Your task to perform on an android device: change notifications settings Image 0: 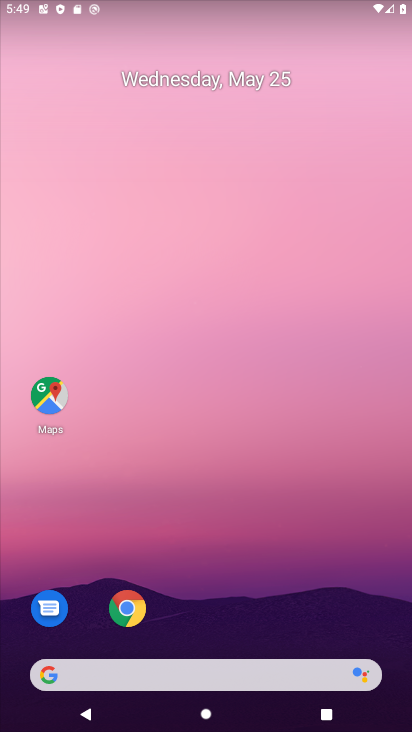
Step 0: drag from (189, 628) to (282, 72)
Your task to perform on an android device: change notifications settings Image 1: 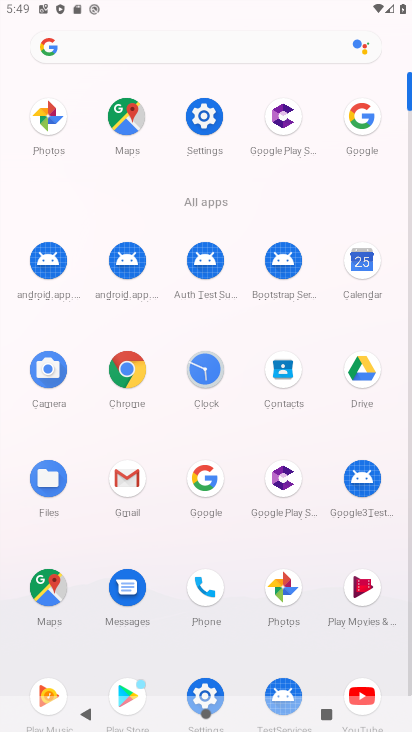
Step 1: click (208, 126)
Your task to perform on an android device: change notifications settings Image 2: 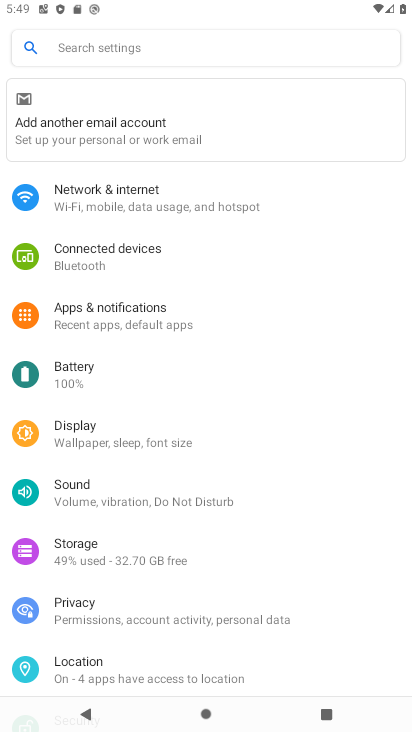
Step 2: click (118, 331)
Your task to perform on an android device: change notifications settings Image 3: 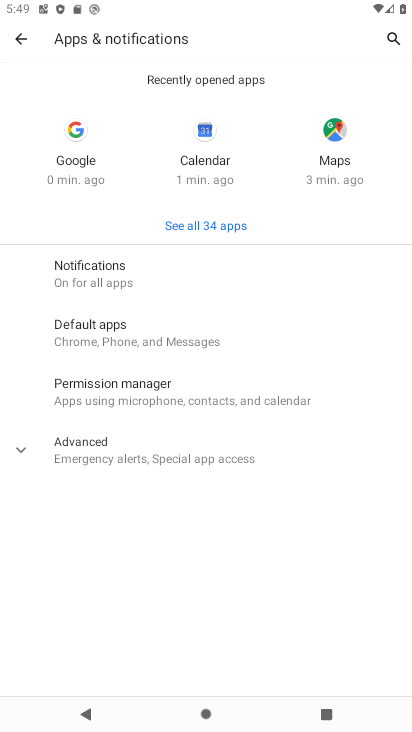
Step 3: click (107, 285)
Your task to perform on an android device: change notifications settings Image 4: 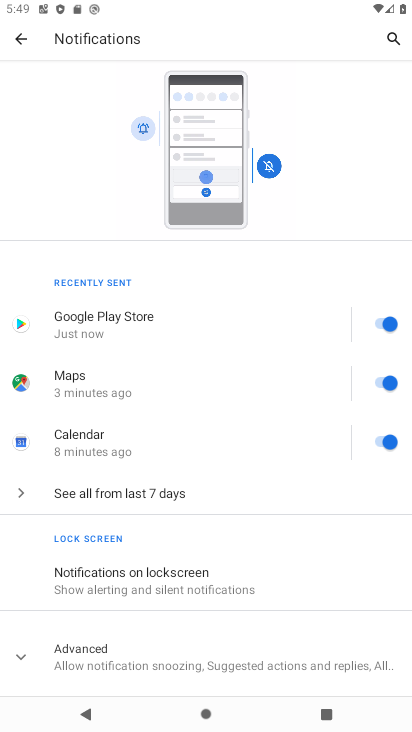
Step 4: click (140, 581)
Your task to perform on an android device: change notifications settings Image 5: 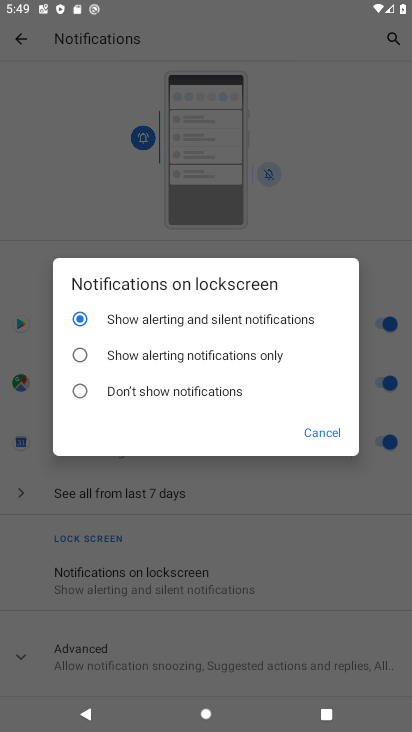
Step 5: click (80, 397)
Your task to perform on an android device: change notifications settings Image 6: 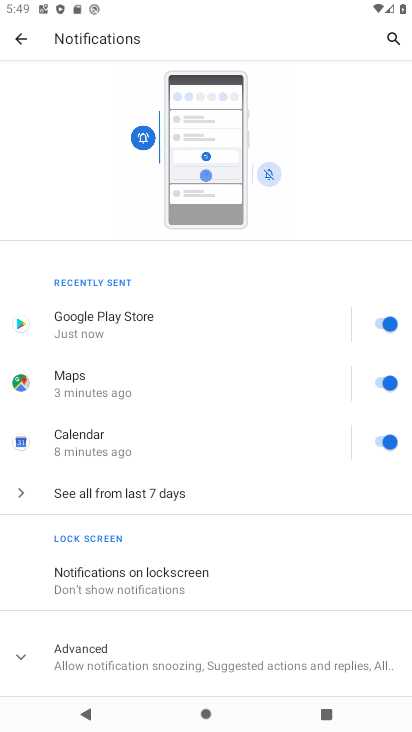
Step 6: task complete